Your task to perform on an android device: Go to Reddit.com Image 0: 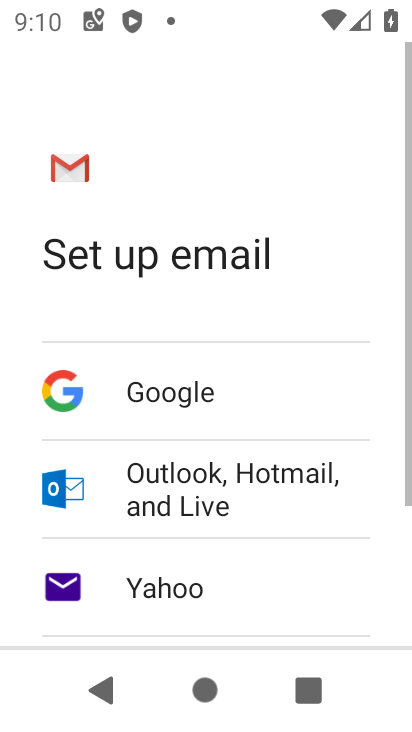
Step 0: press home button
Your task to perform on an android device: Go to Reddit.com Image 1: 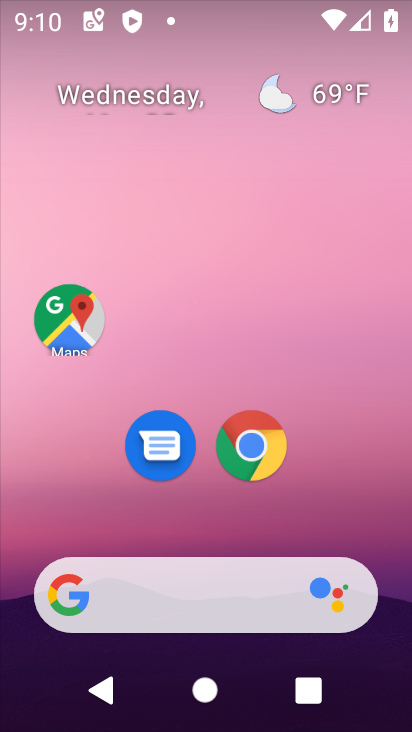
Step 1: drag from (256, 496) to (346, 82)
Your task to perform on an android device: Go to Reddit.com Image 2: 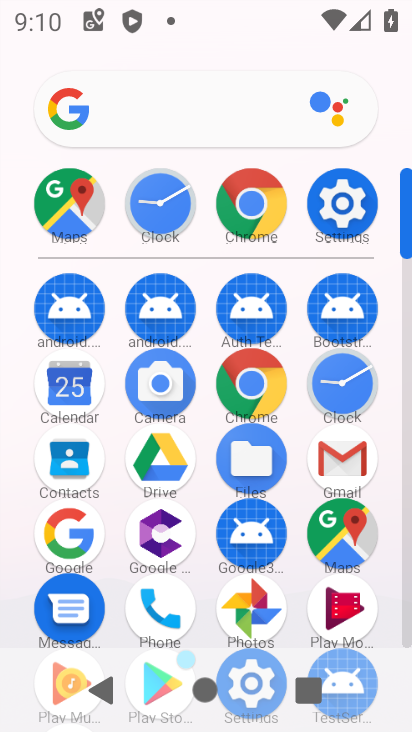
Step 2: click (250, 383)
Your task to perform on an android device: Go to Reddit.com Image 3: 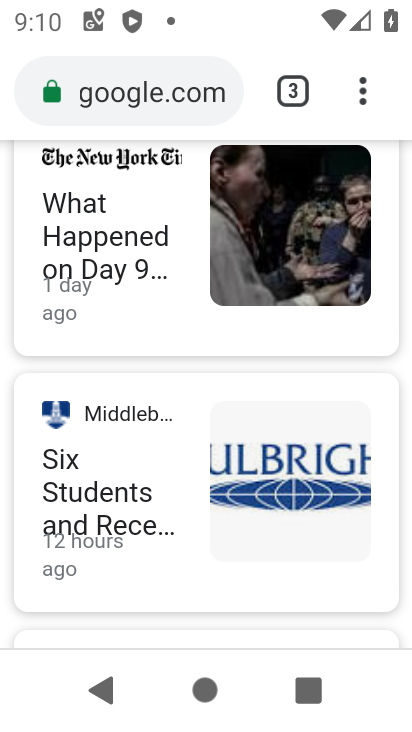
Step 3: click (158, 84)
Your task to perform on an android device: Go to Reddit.com Image 4: 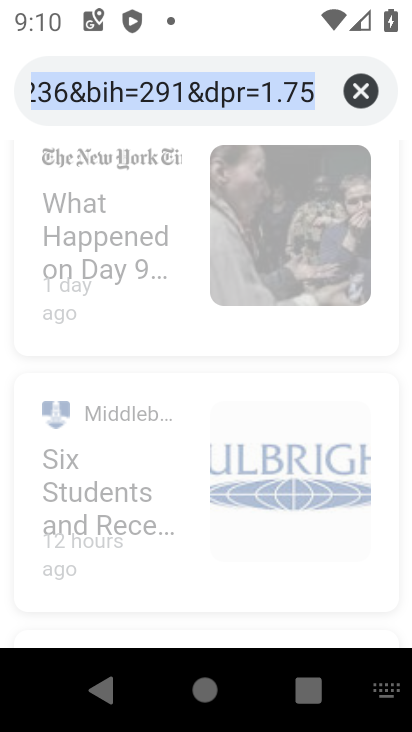
Step 4: click (351, 91)
Your task to perform on an android device: Go to Reddit.com Image 5: 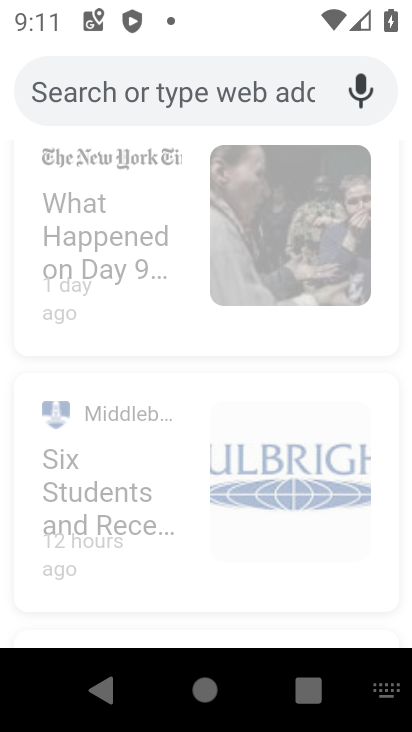
Step 5: type "Reddit.com"
Your task to perform on an android device: Go to Reddit.com Image 6: 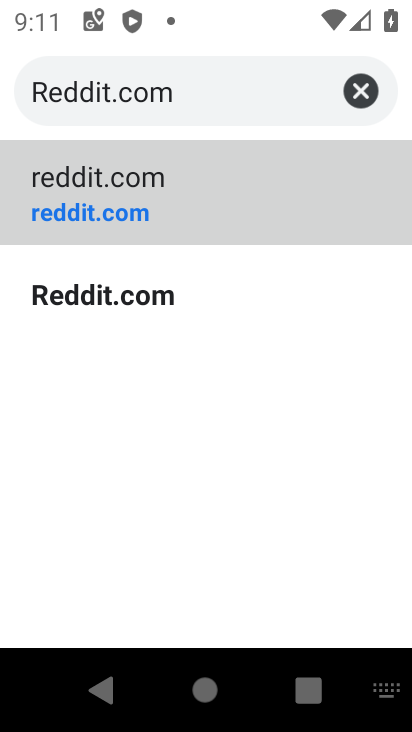
Step 6: click (110, 214)
Your task to perform on an android device: Go to Reddit.com Image 7: 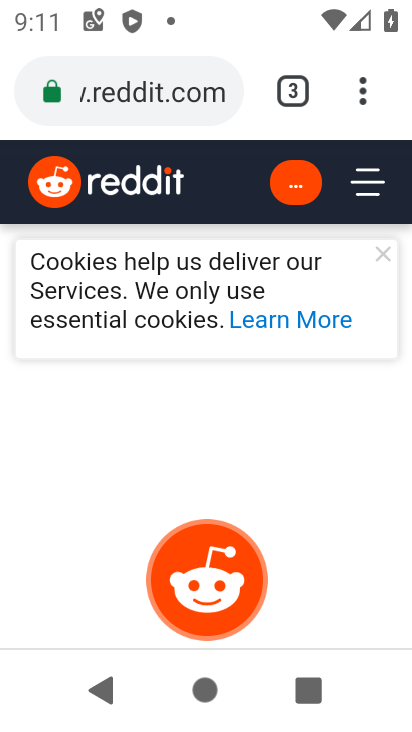
Step 7: task complete